Your task to perform on an android device: Clear the shopping cart on ebay. Add macbook pro 15 inch to the cart on ebay, then select checkout. Image 0: 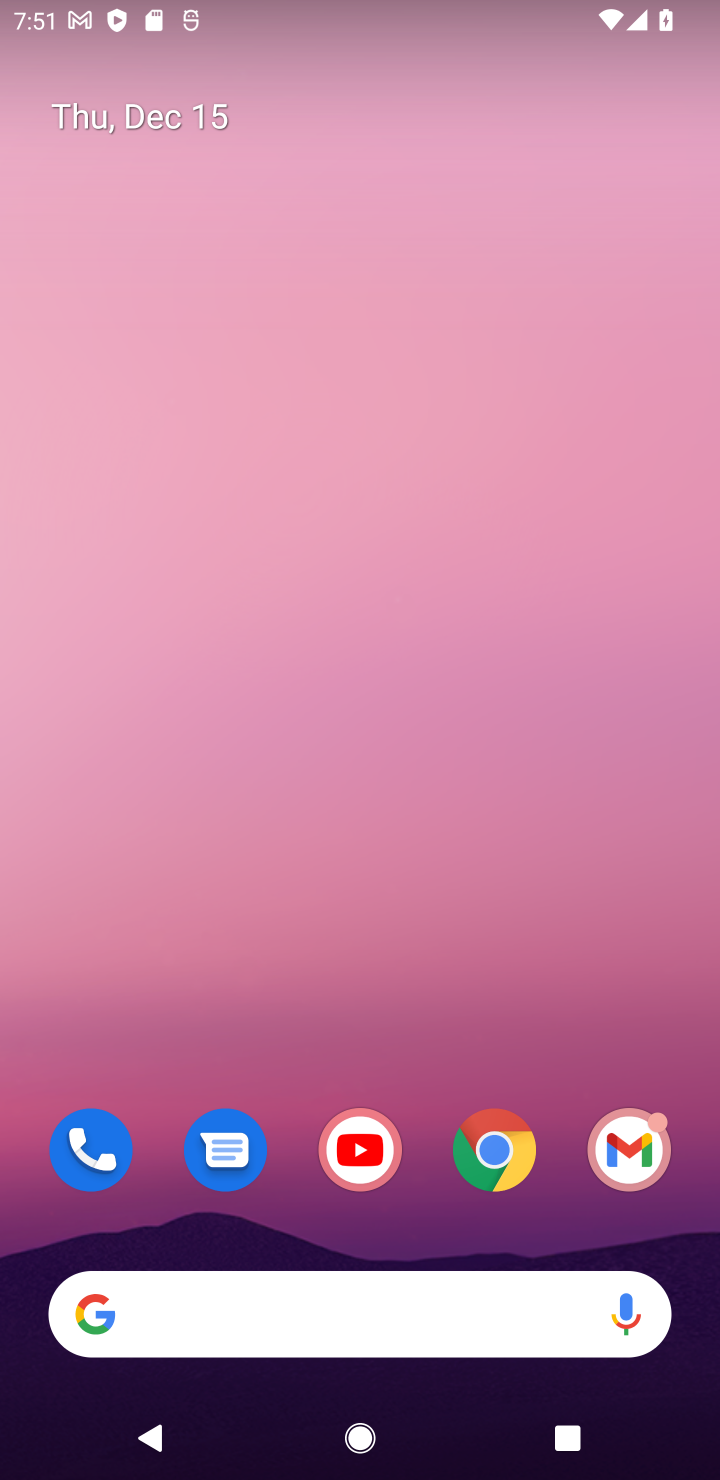
Step 0: click (502, 1158)
Your task to perform on an android device: Clear the shopping cart on ebay. Add macbook pro 15 inch to the cart on ebay, then select checkout. Image 1: 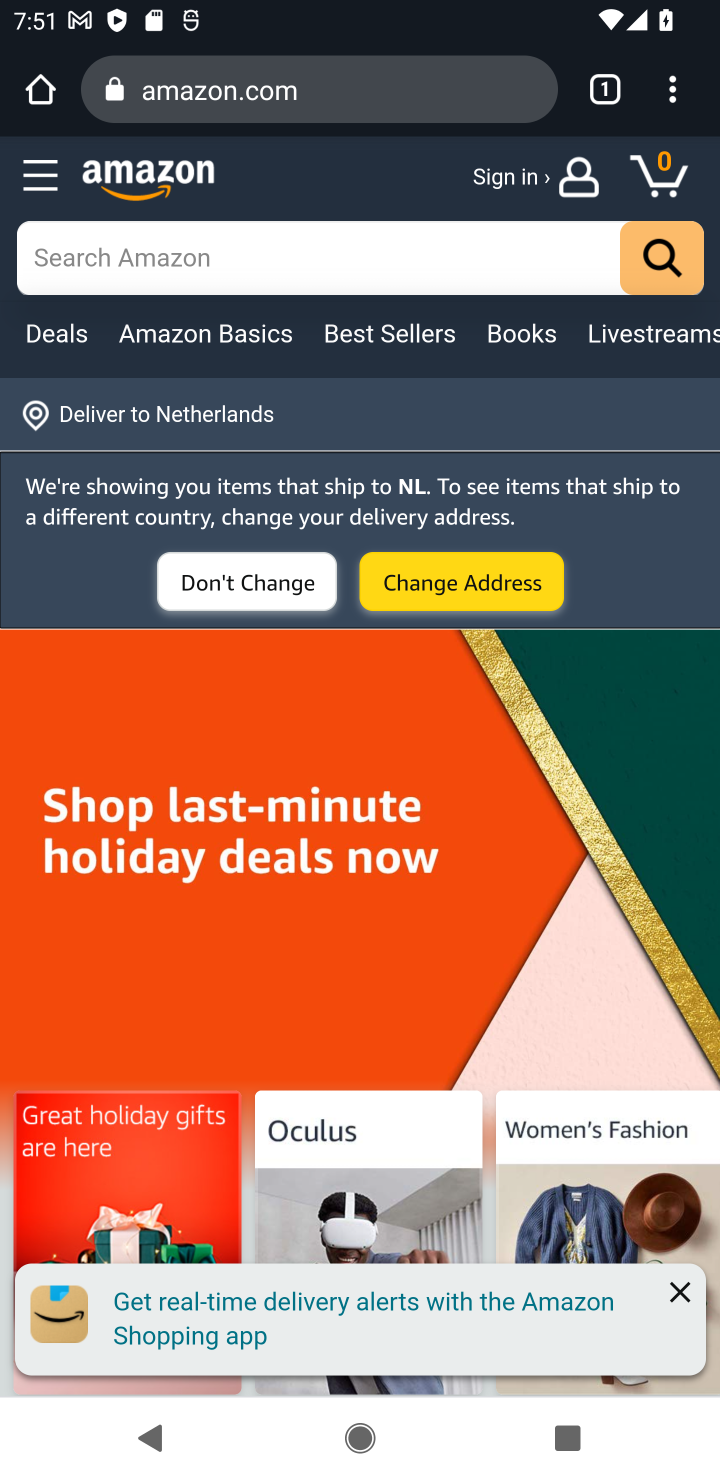
Step 1: click (295, 82)
Your task to perform on an android device: Clear the shopping cart on ebay. Add macbook pro 15 inch to the cart on ebay, then select checkout. Image 2: 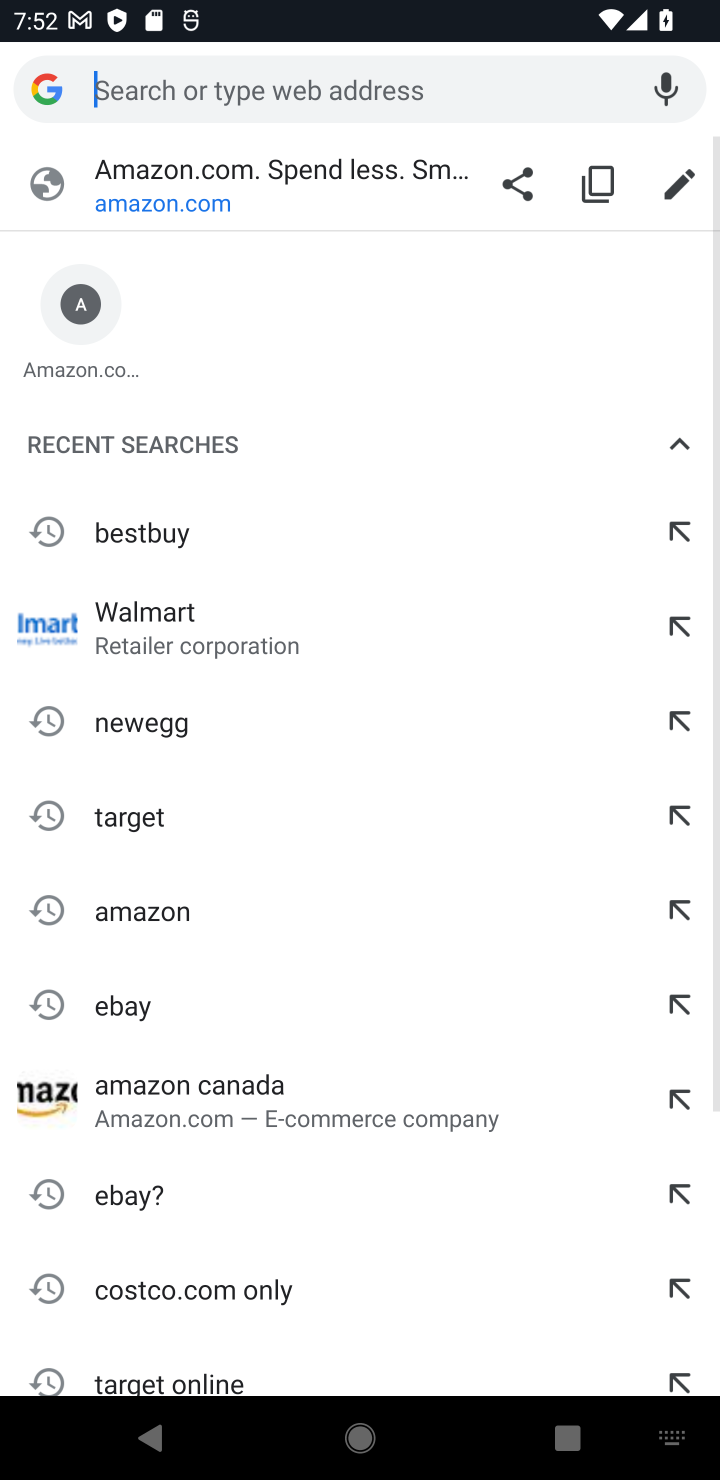
Step 2: type "EBAY"
Your task to perform on an android device: Clear the shopping cart on ebay. Add macbook pro 15 inch to the cart on ebay, then select checkout. Image 3: 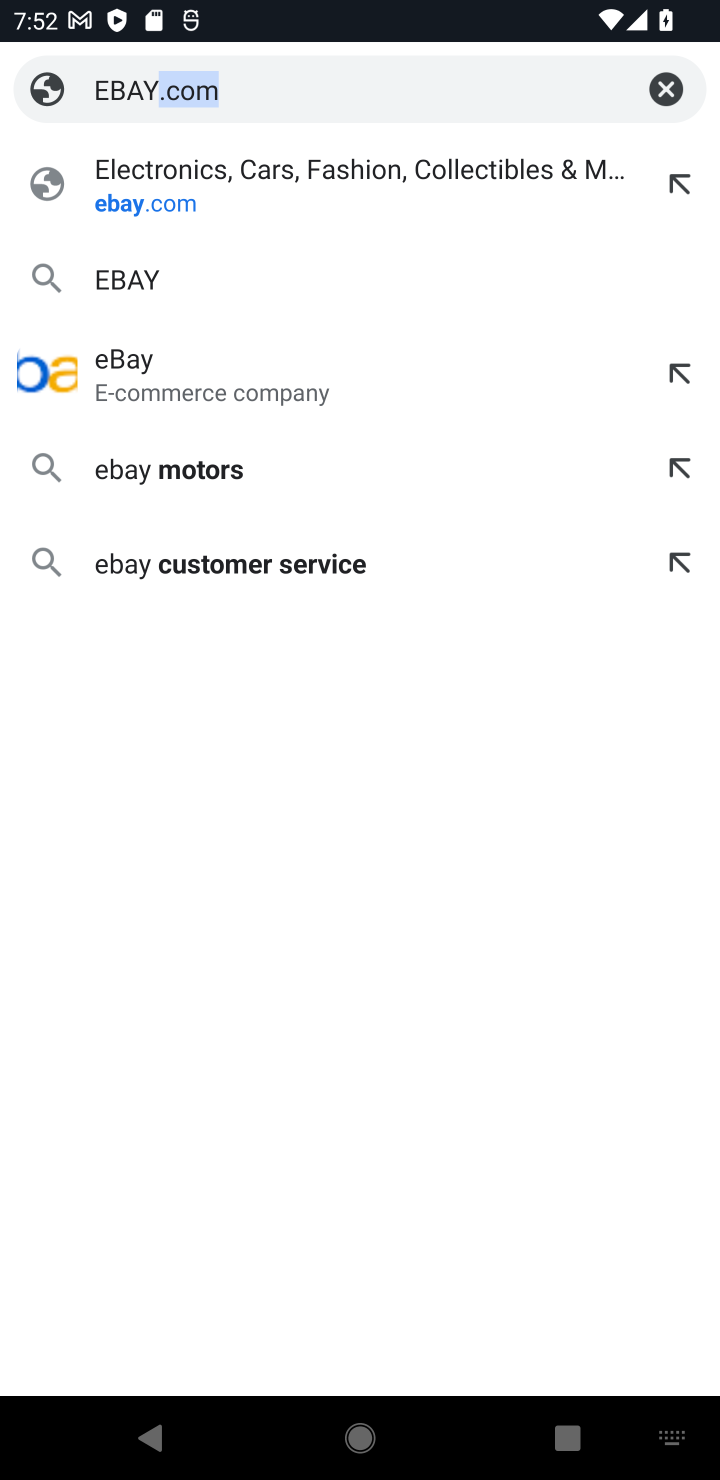
Step 3: click (207, 173)
Your task to perform on an android device: Clear the shopping cart on ebay. Add macbook pro 15 inch to the cart on ebay, then select checkout. Image 4: 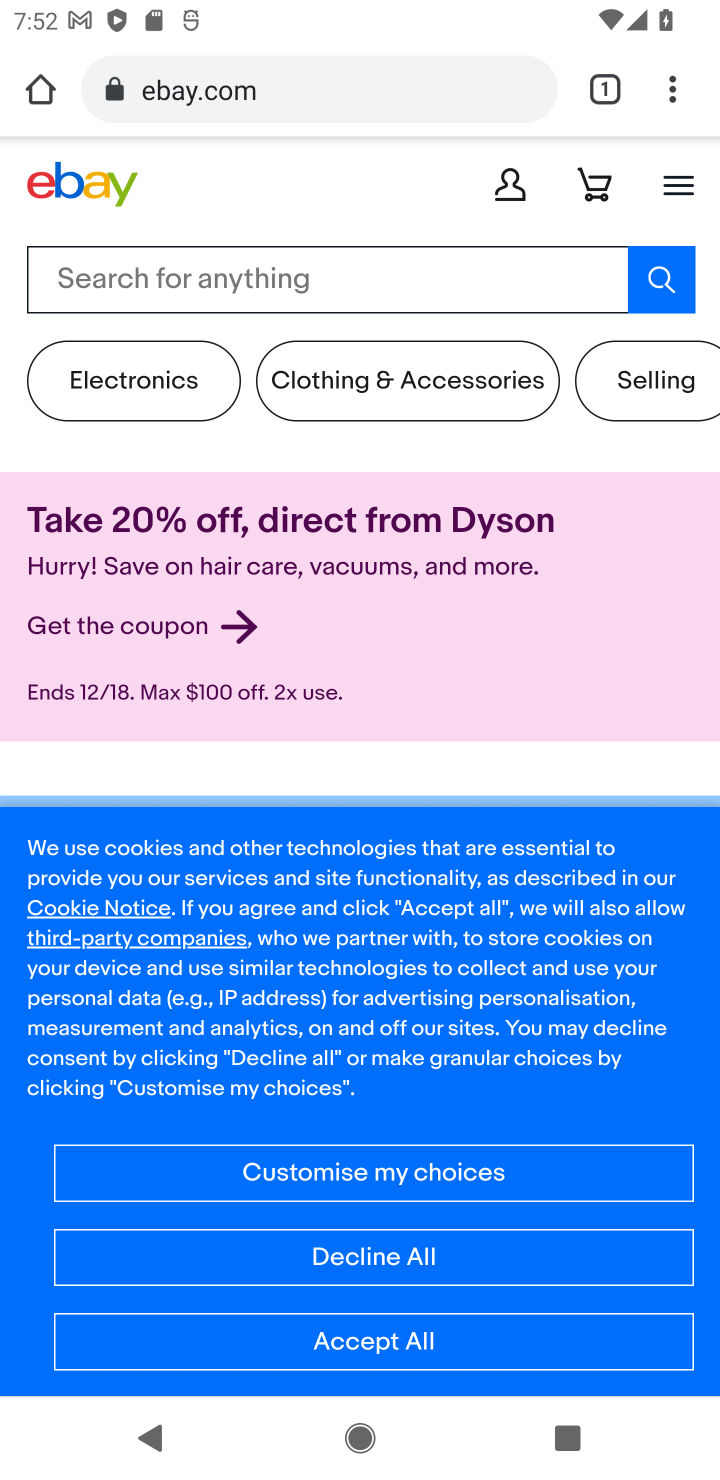
Step 4: click (340, 283)
Your task to perform on an android device: Clear the shopping cart on ebay. Add macbook pro 15 inch to the cart on ebay, then select checkout. Image 5: 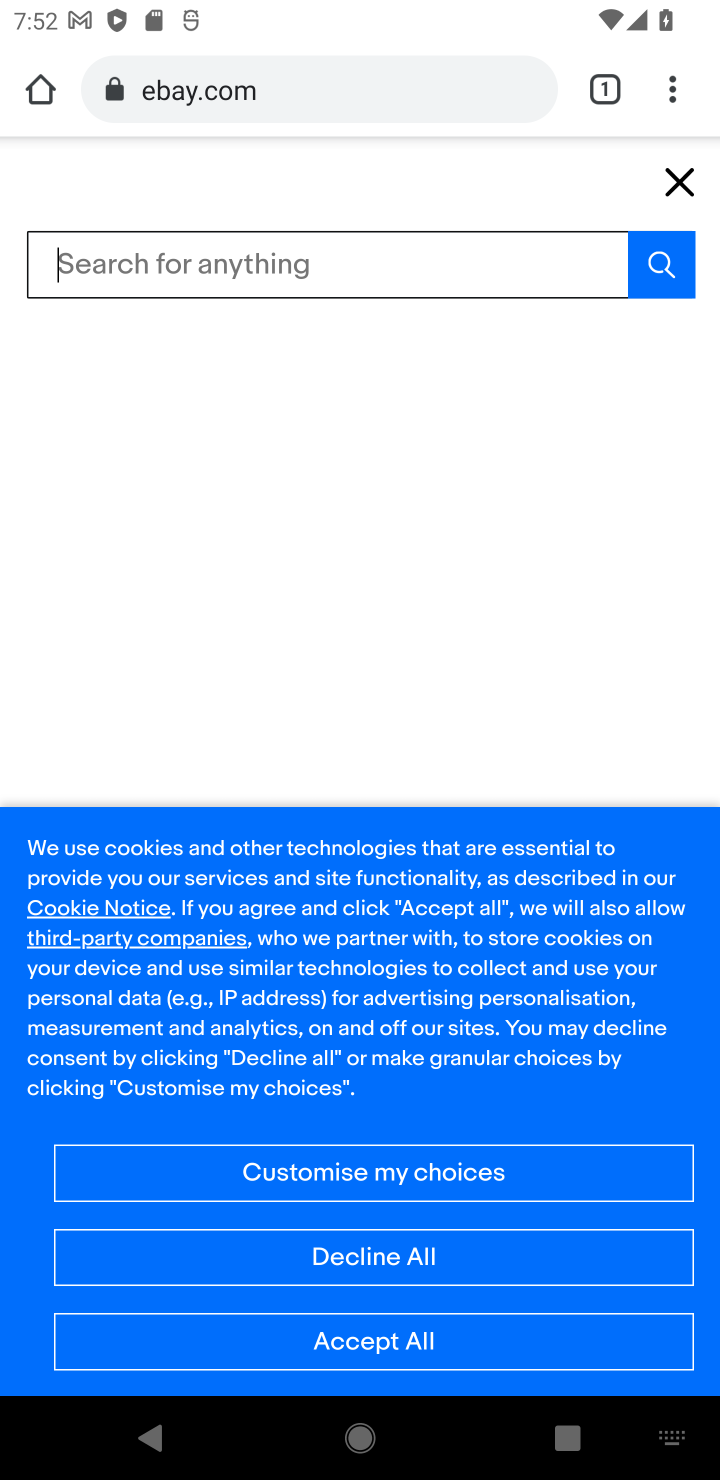
Step 5: click (390, 1343)
Your task to perform on an android device: Clear the shopping cart on ebay. Add macbook pro 15 inch to the cart on ebay, then select checkout. Image 6: 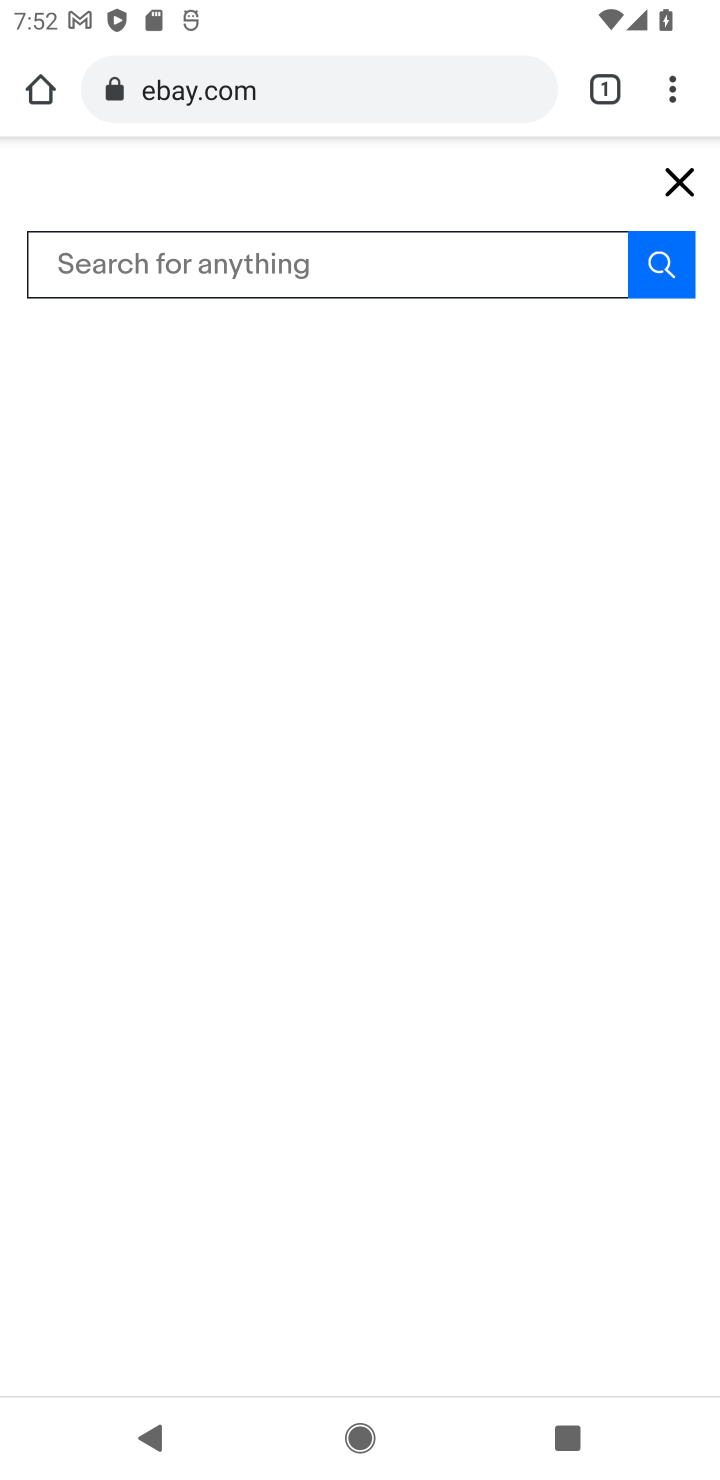
Step 6: click (135, 249)
Your task to perform on an android device: Clear the shopping cart on ebay. Add macbook pro 15 inch to the cart on ebay, then select checkout. Image 7: 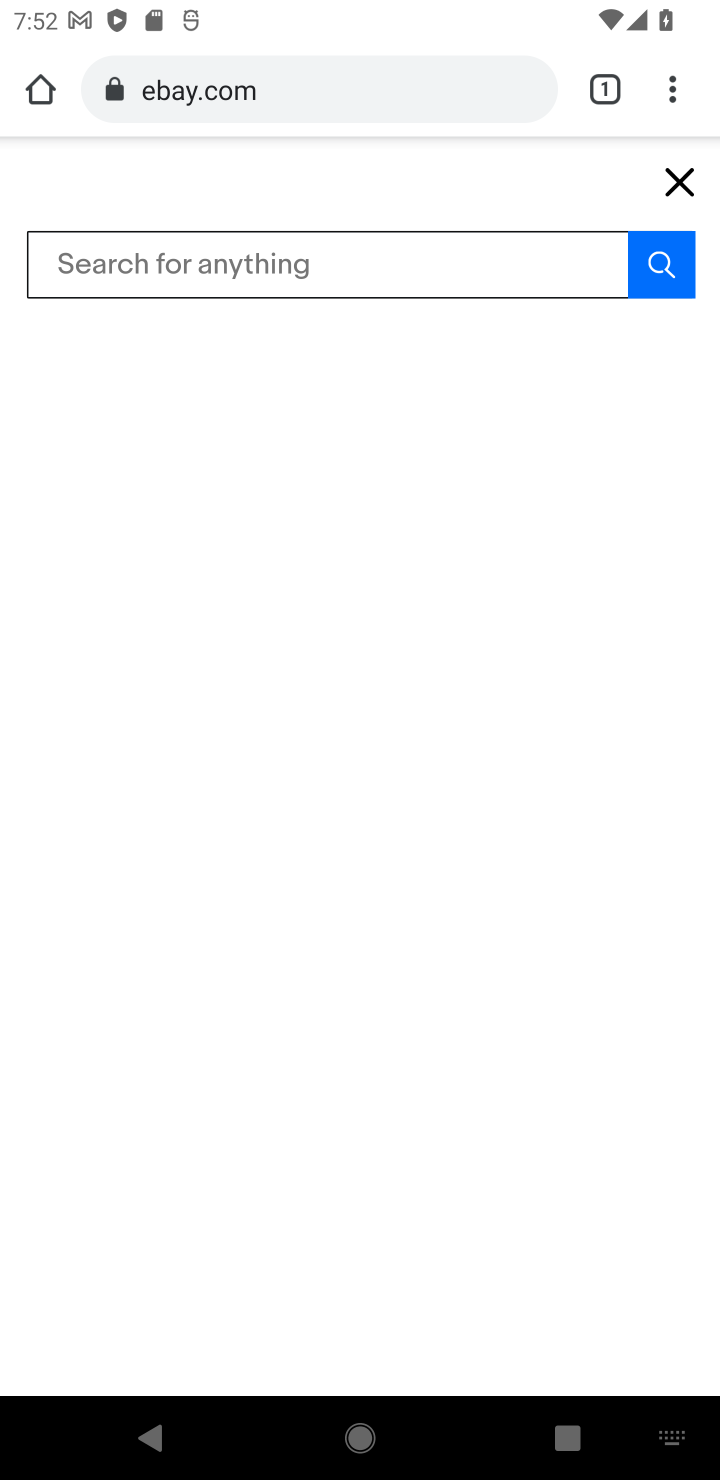
Step 7: type "macbook pro 15 inch"
Your task to perform on an android device: Clear the shopping cart on ebay. Add macbook pro 15 inch to the cart on ebay, then select checkout. Image 8: 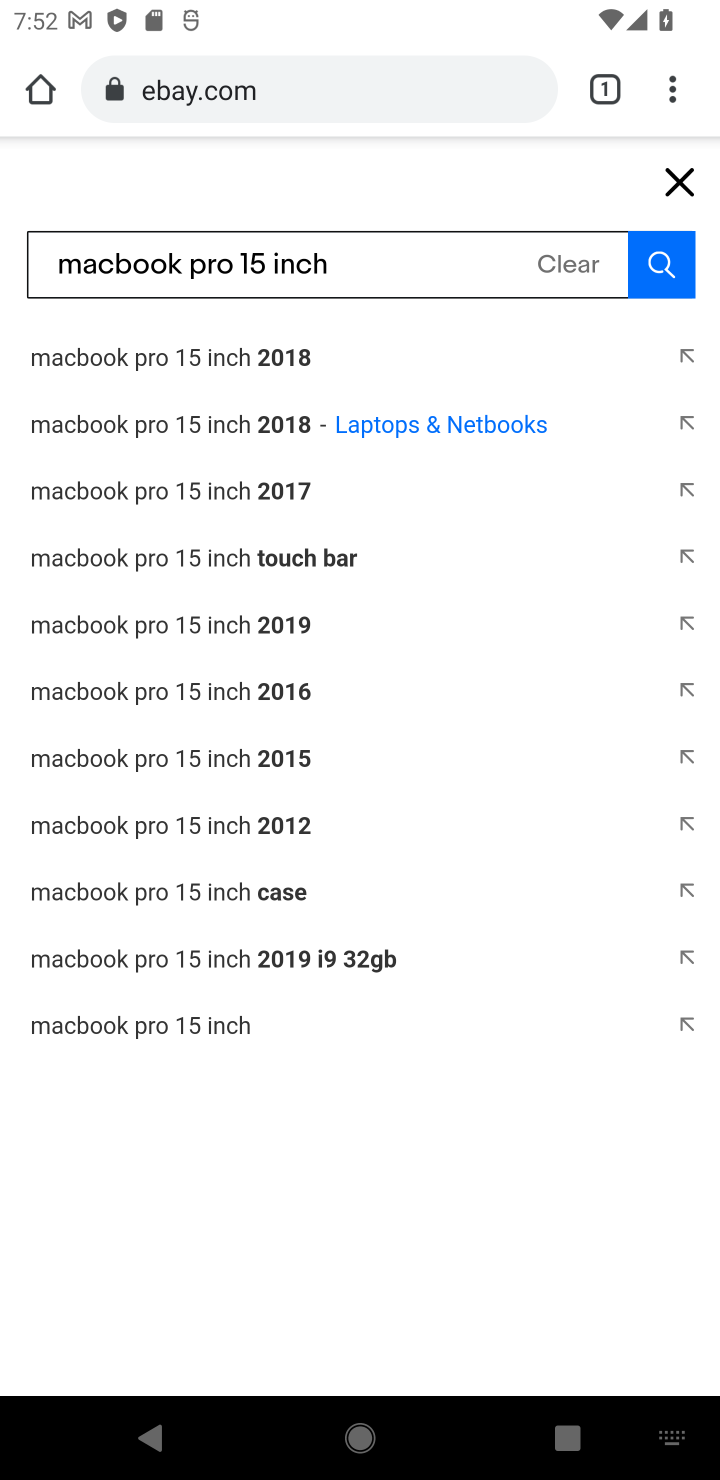
Step 8: click (214, 345)
Your task to perform on an android device: Clear the shopping cart on ebay. Add macbook pro 15 inch to the cart on ebay, then select checkout. Image 9: 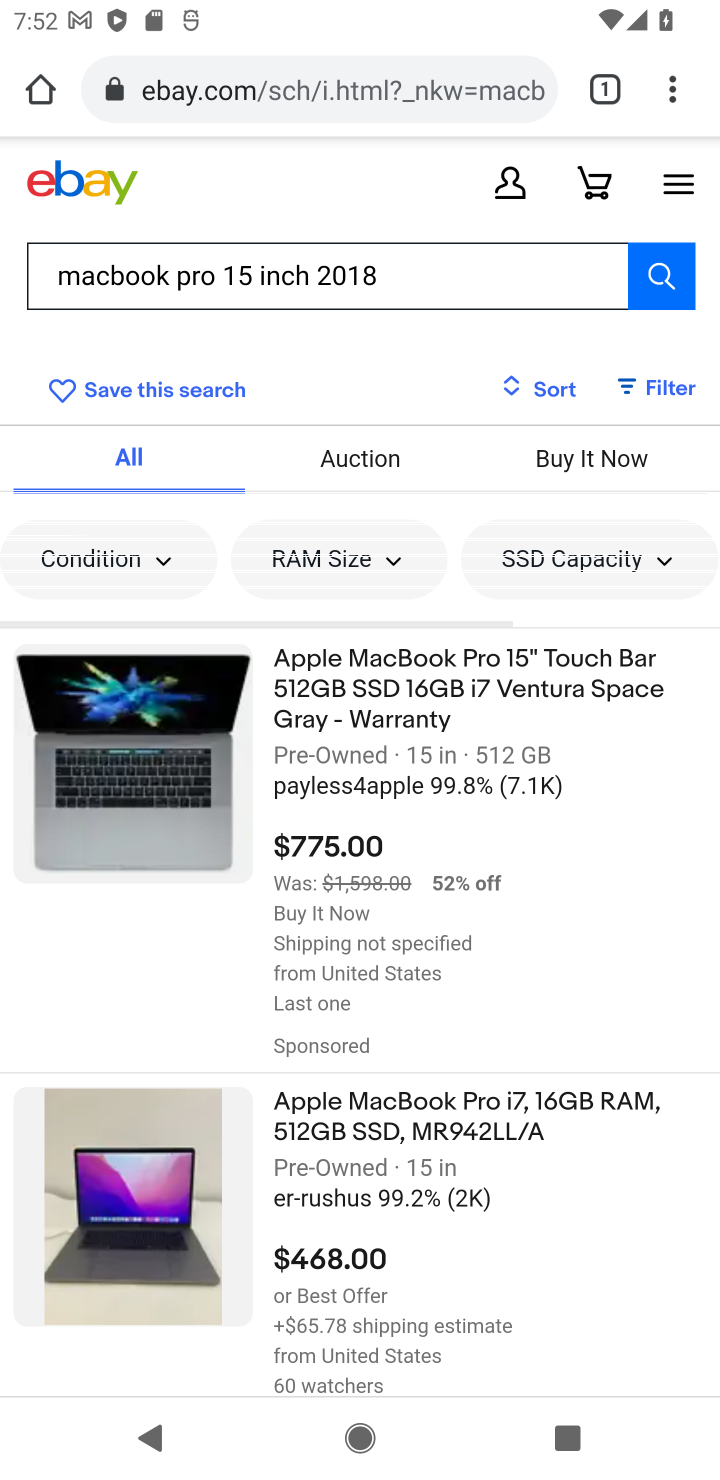
Step 9: click (606, 726)
Your task to perform on an android device: Clear the shopping cart on ebay. Add macbook pro 15 inch to the cart on ebay, then select checkout. Image 10: 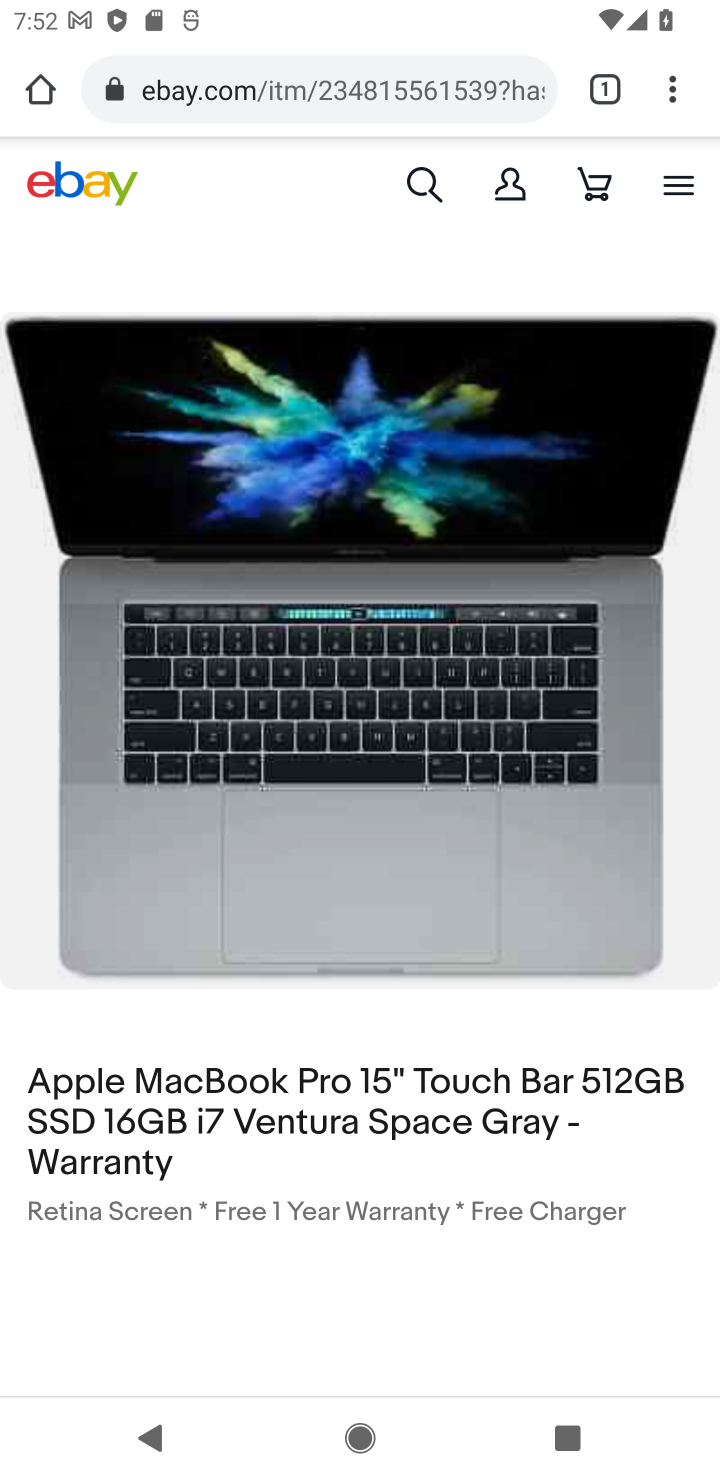
Step 10: drag from (575, 1223) to (489, 131)
Your task to perform on an android device: Clear the shopping cart on ebay. Add macbook pro 15 inch to the cart on ebay, then select checkout. Image 11: 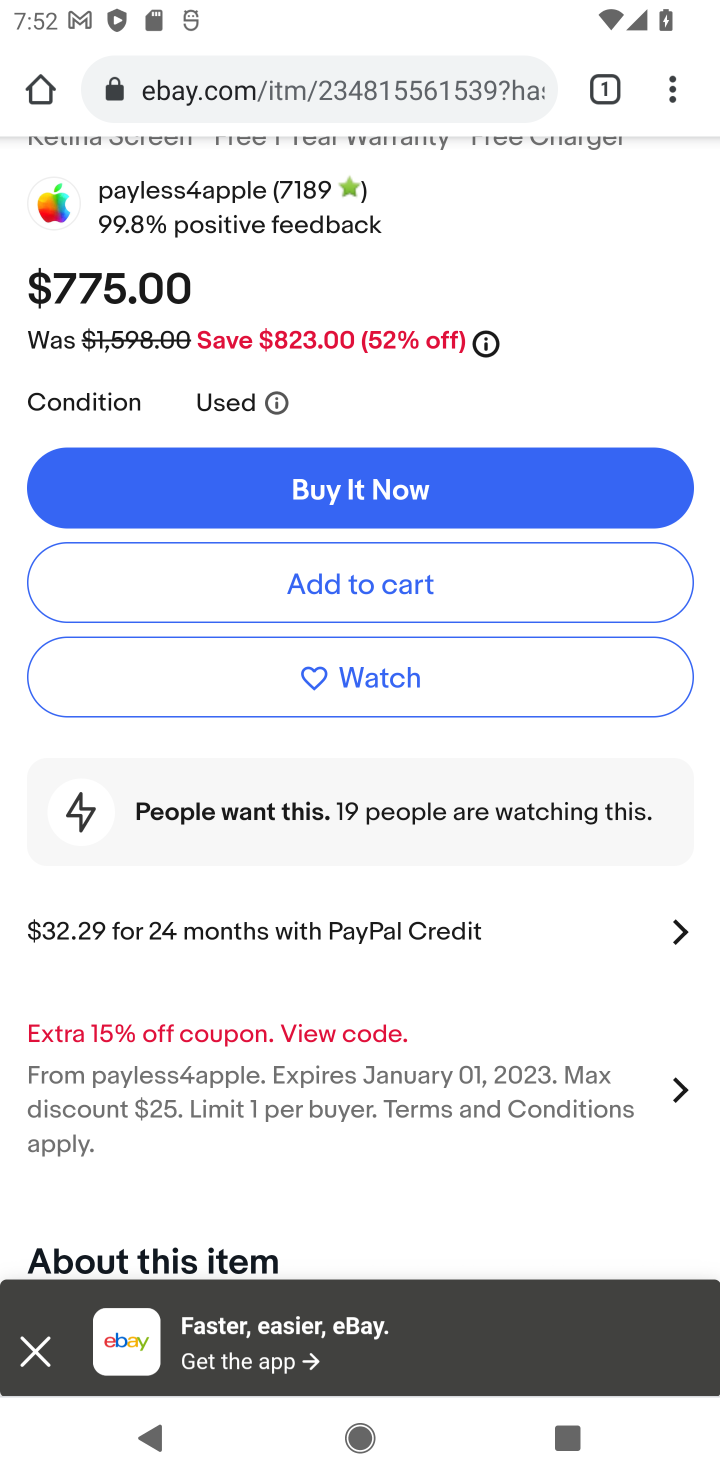
Step 11: click (389, 591)
Your task to perform on an android device: Clear the shopping cart on ebay. Add macbook pro 15 inch to the cart on ebay, then select checkout. Image 12: 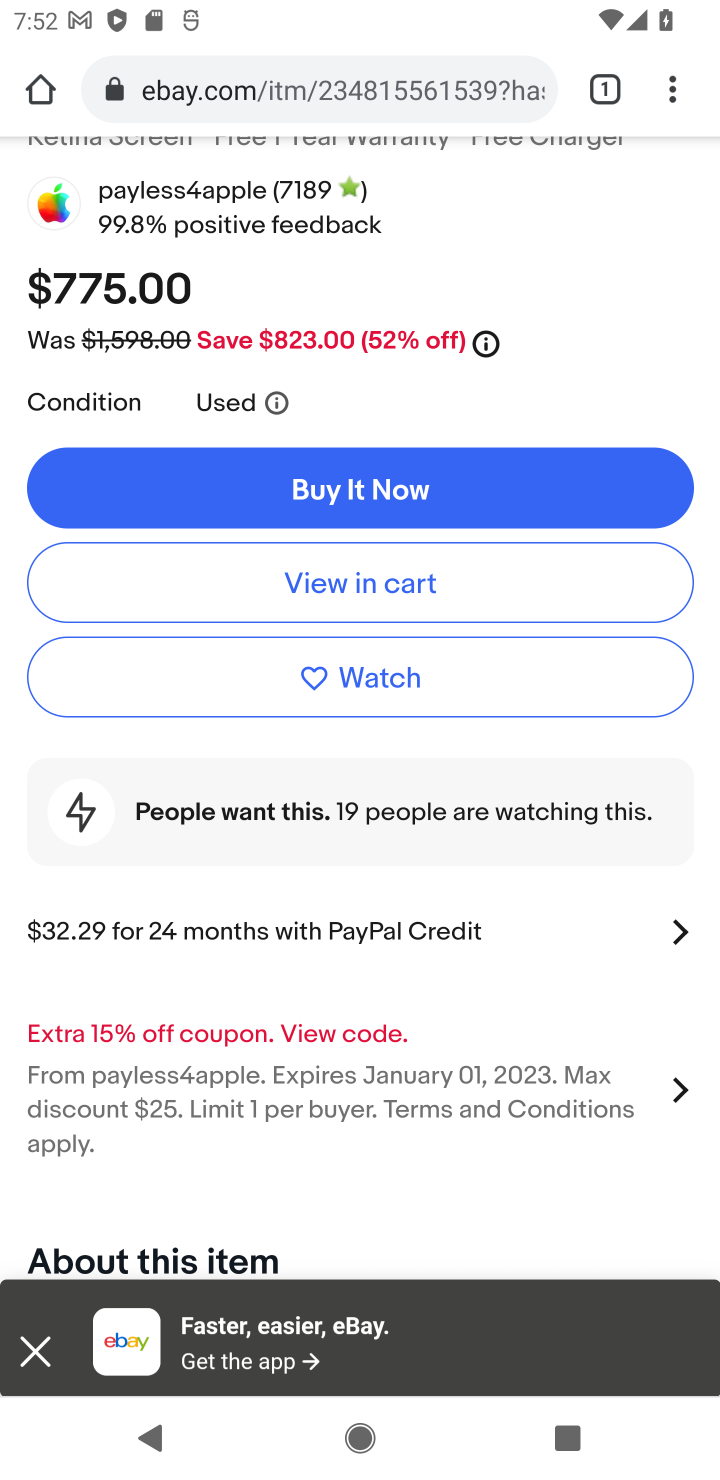
Step 12: click (432, 581)
Your task to perform on an android device: Clear the shopping cart on ebay. Add macbook pro 15 inch to the cart on ebay, then select checkout. Image 13: 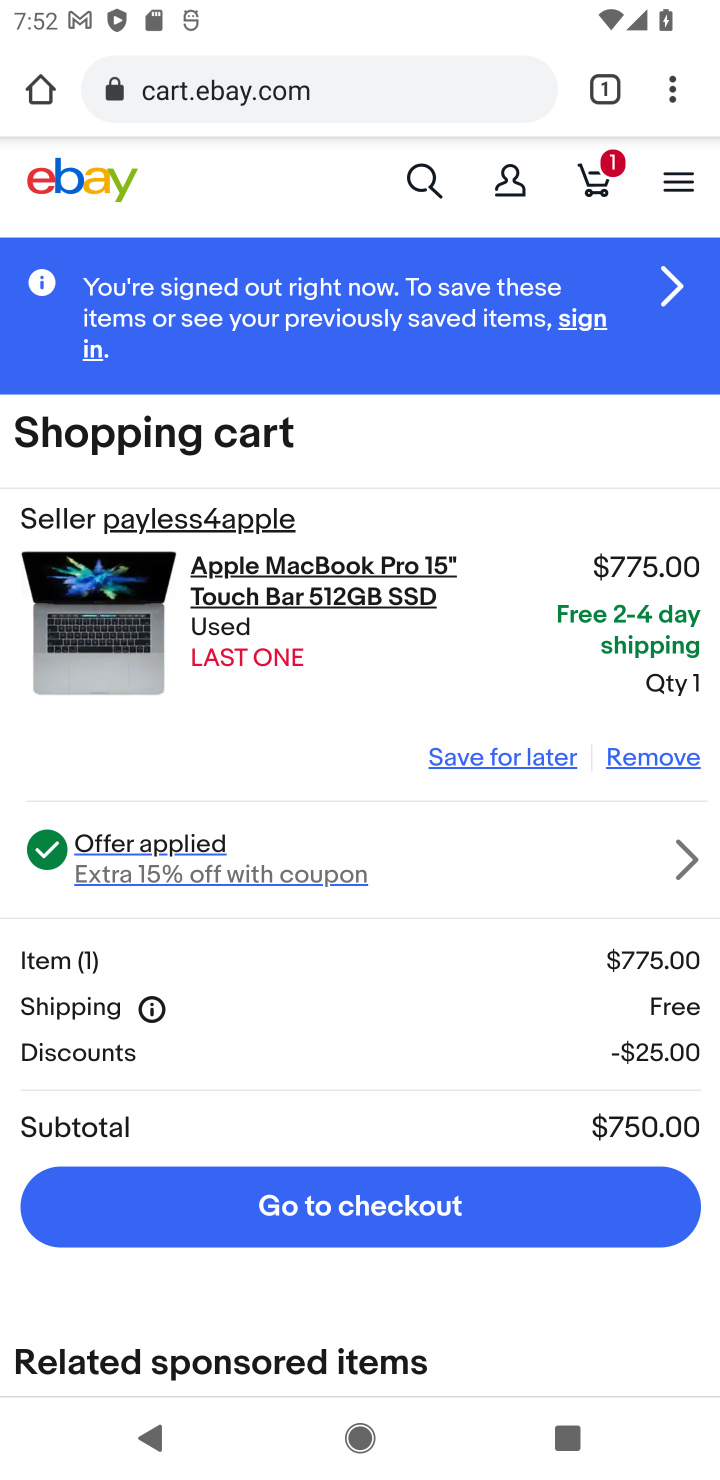
Step 13: click (456, 1204)
Your task to perform on an android device: Clear the shopping cart on ebay. Add macbook pro 15 inch to the cart on ebay, then select checkout. Image 14: 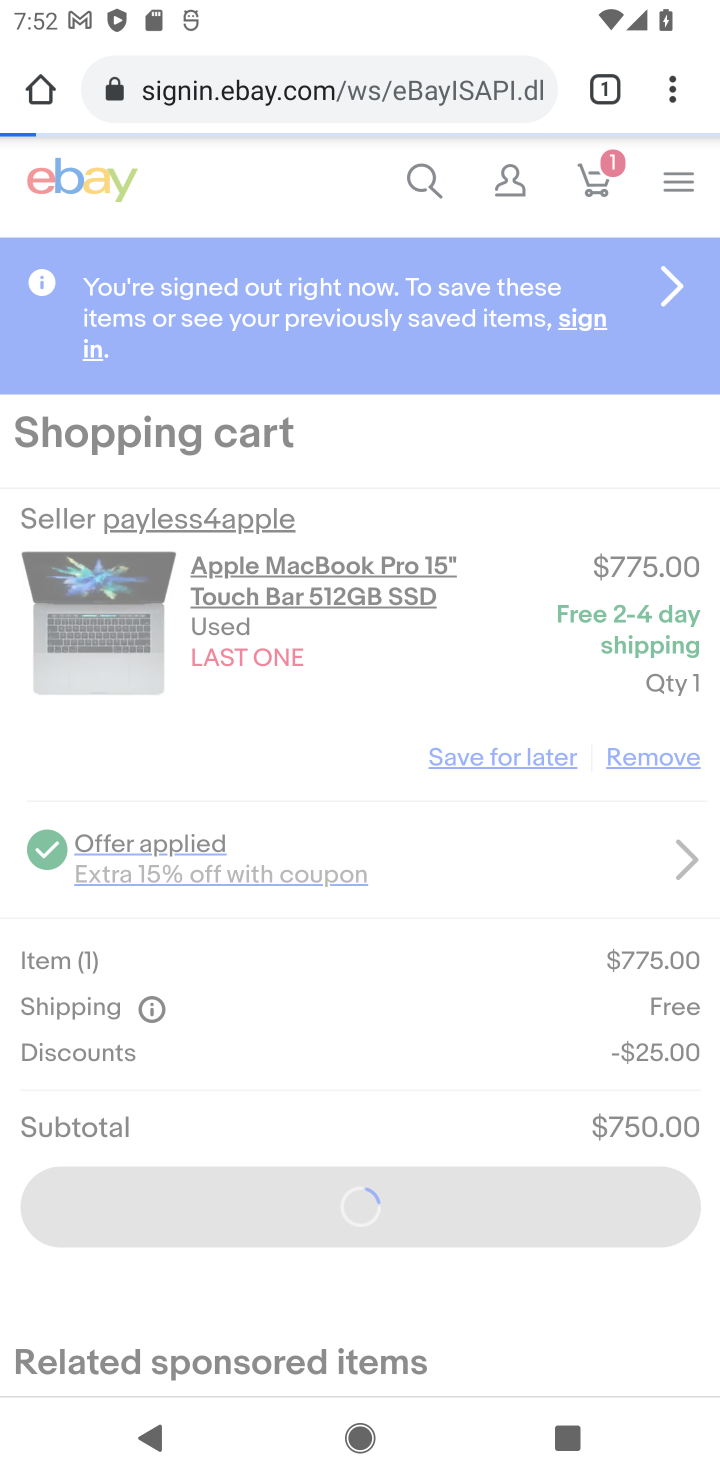
Step 14: task complete